Your task to perform on an android device: turn pop-ups off in chrome Image 0: 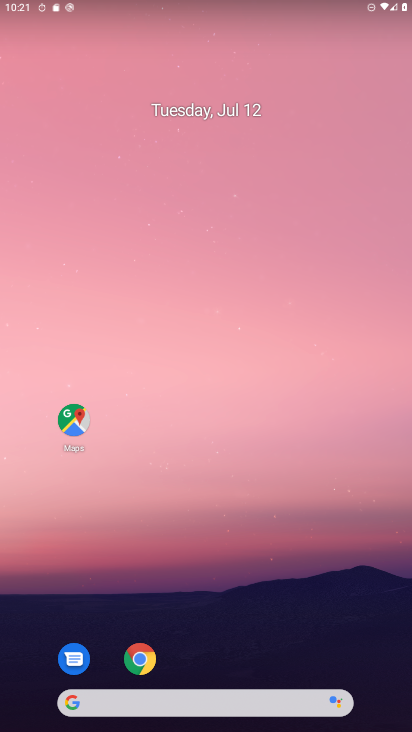
Step 0: click (143, 664)
Your task to perform on an android device: turn pop-ups off in chrome Image 1: 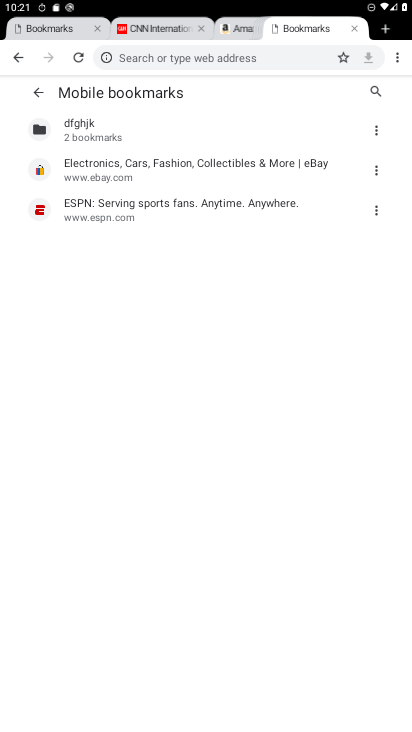
Step 1: click (396, 57)
Your task to perform on an android device: turn pop-ups off in chrome Image 2: 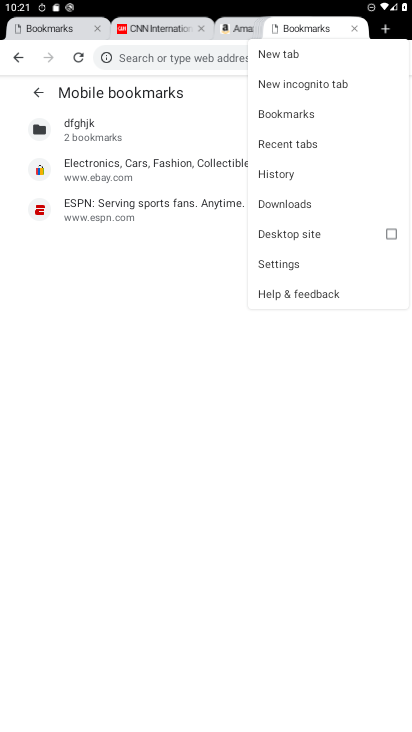
Step 2: click (281, 260)
Your task to perform on an android device: turn pop-ups off in chrome Image 3: 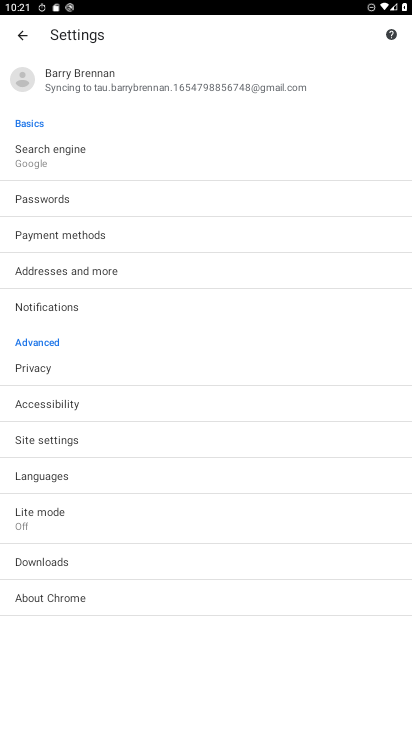
Step 3: click (48, 438)
Your task to perform on an android device: turn pop-ups off in chrome Image 4: 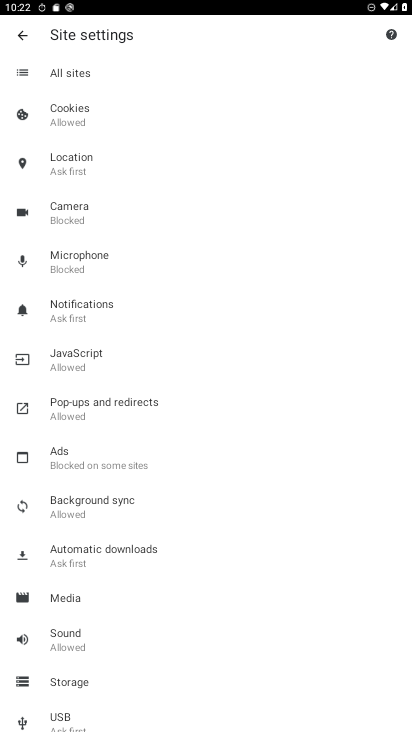
Step 4: click (64, 403)
Your task to perform on an android device: turn pop-ups off in chrome Image 5: 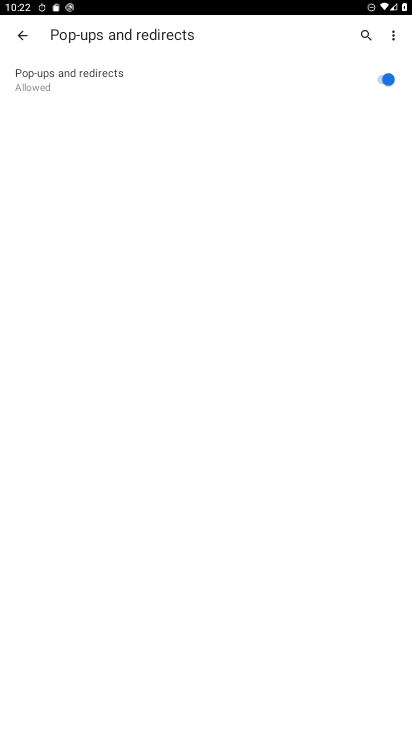
Step 5: click (381, 80)
Your task to perform on an android device: turn pop-ups off in chrome Image 6: 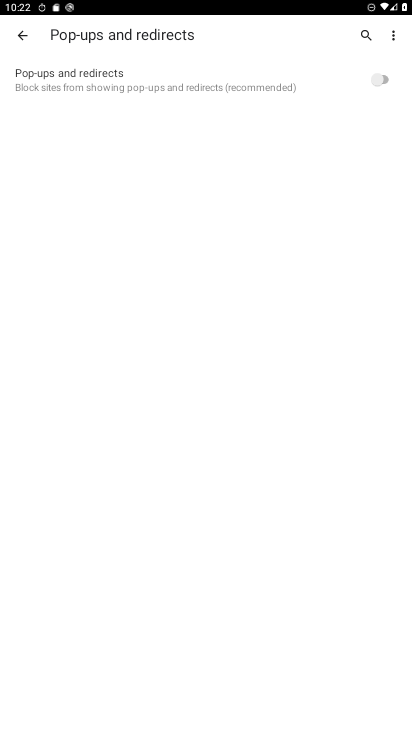
Step 6: task complete